Your task to perform on an android device: Open Google Chrome and click the shortcut for Amazon.com Image 0: 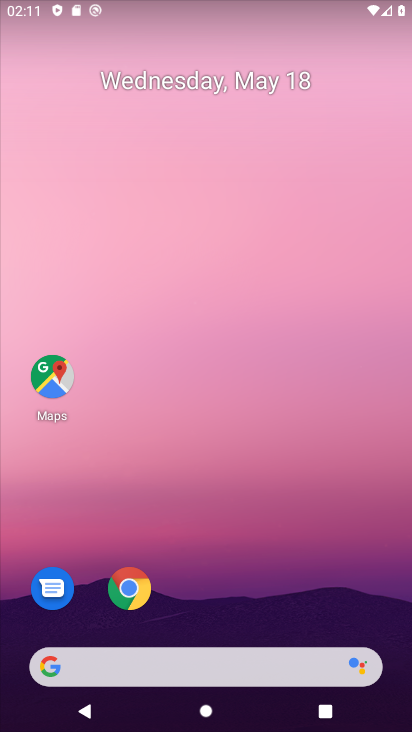
Step 0: click (126, 589)
Your task to perform on an android device: Open Google Chrome and click the shortcut for Amazon.com Image 1: 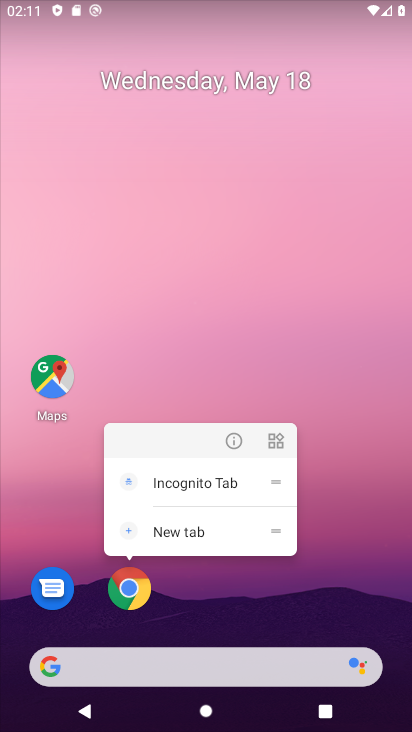
Step 1: click (123, 595)
Your task to perform on an android device: Open Google Chrome and click the shortcut for Amazon.com Image 2: 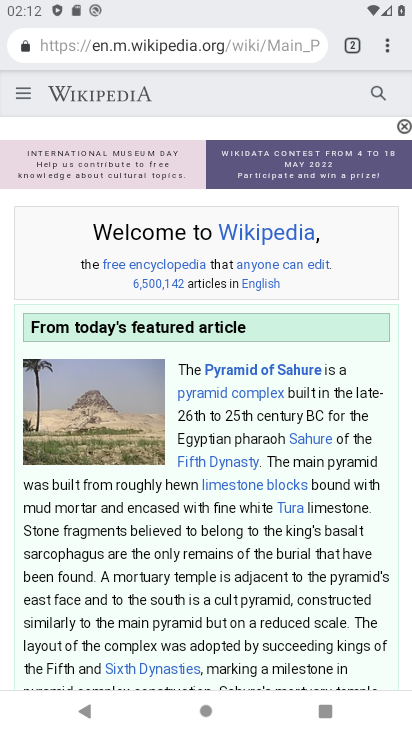
Step 2: click (355, 52)
Your task to perform on an android device: Open Google Chrome and click the shortcut for Amazon.com Image 3: 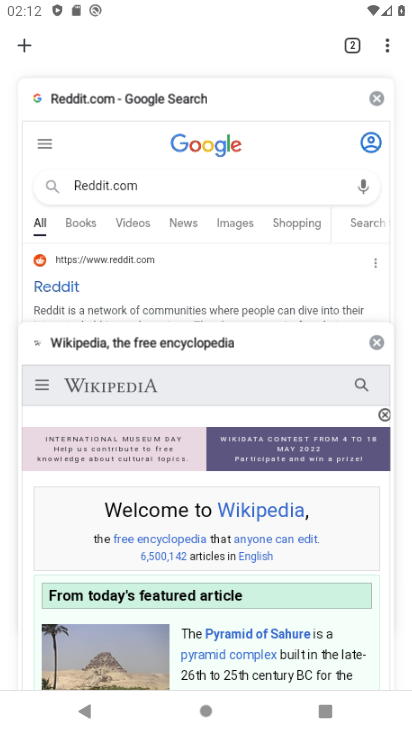
Step 3: click (377, 342)
Your task to perform on an android device: Open Google Chrome and click the shortcut for Amazon.com Image 4: 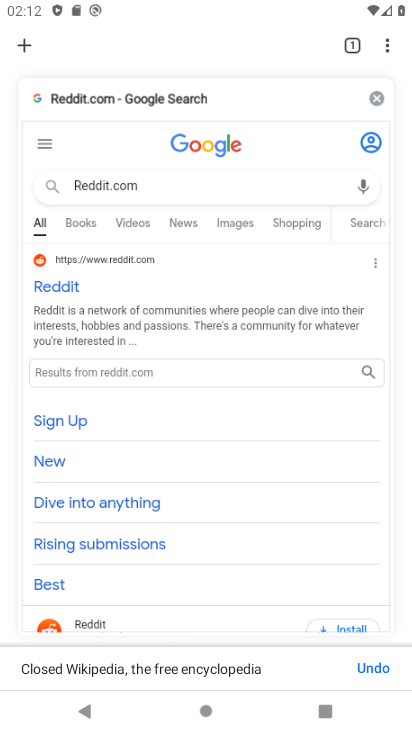
Step 4: click (379, 96)
Your task to perform on an android device: Open Google Chrome and click the shortcut for Amazon.com Image 5: 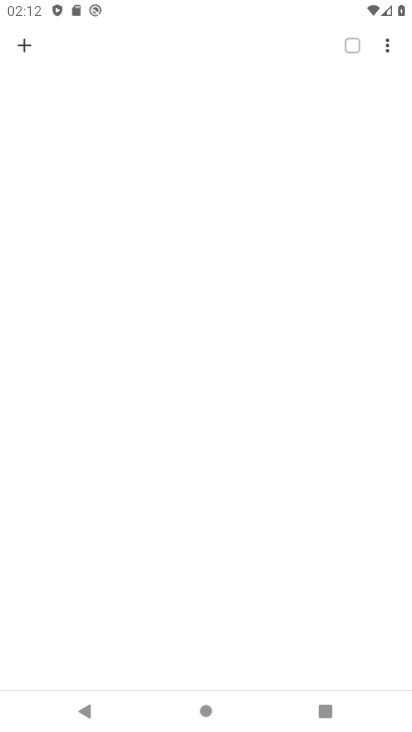
Step 5: click (7, 44)
Your task to perform on an android device: Open Google Chrome and click the shortcut for Amazon.com Image 6: 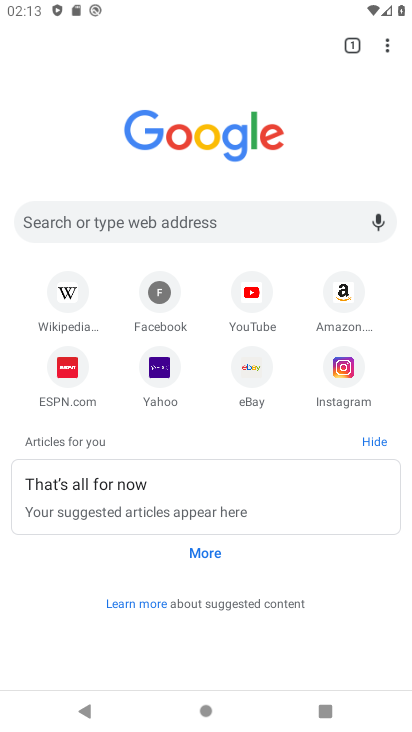
Step 6: click (332, 300)
Your task to perform on an android device: Open Google Chrome and click the shortcut for Amazon.com Image 7: 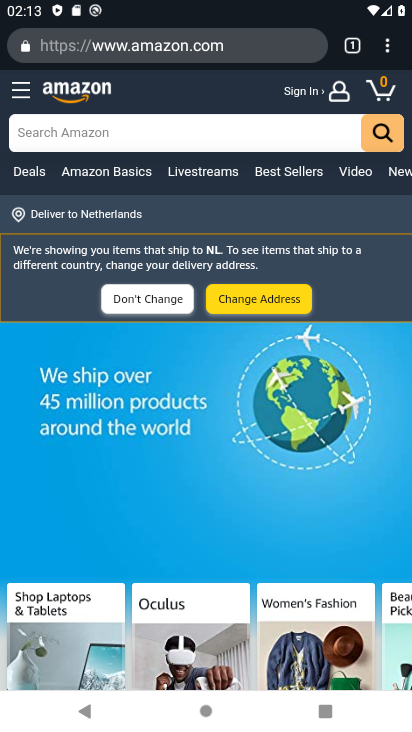
Step 7: task complete